Your task to perform on an android device: move a message to another label in the gmail app Image 0: 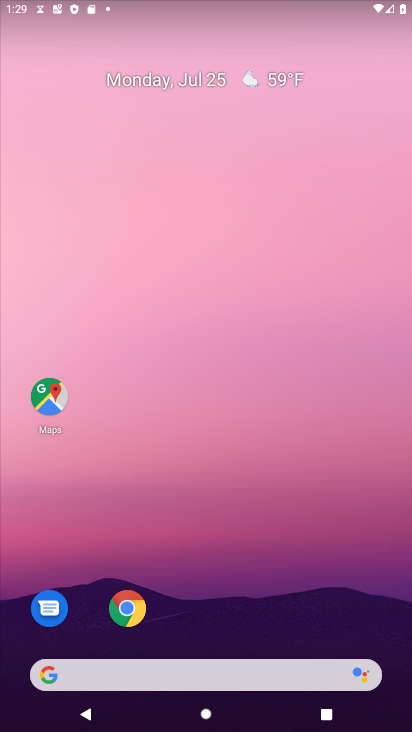
Step 0: click (248, 136)
Your task to perform on an android device: move a message to another label in the gmail app Image 1: 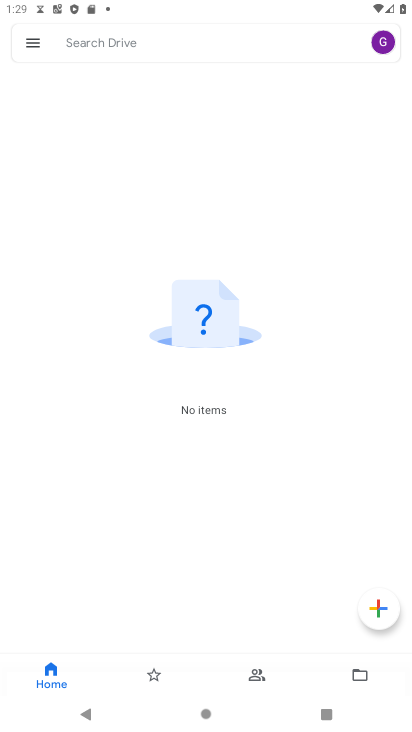
Step 1: press home button
Your task to perform on an android device: move a message to another label in the gmail app Image 2: 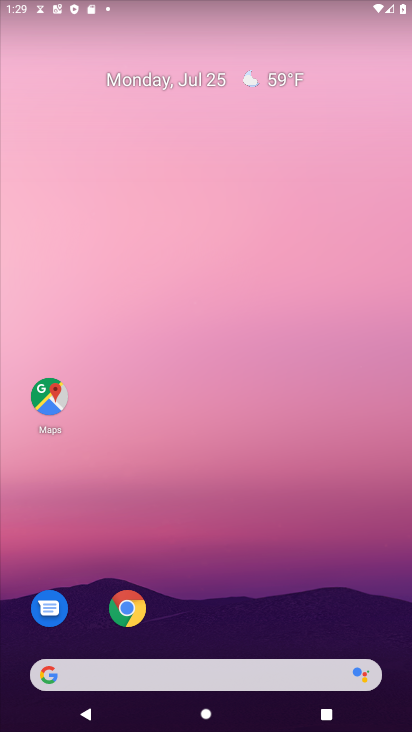
Step 2: drag from (219, 620) to (227, 181)
Your task to perform on an android device: move a message to another label in the gmail app Image 3: 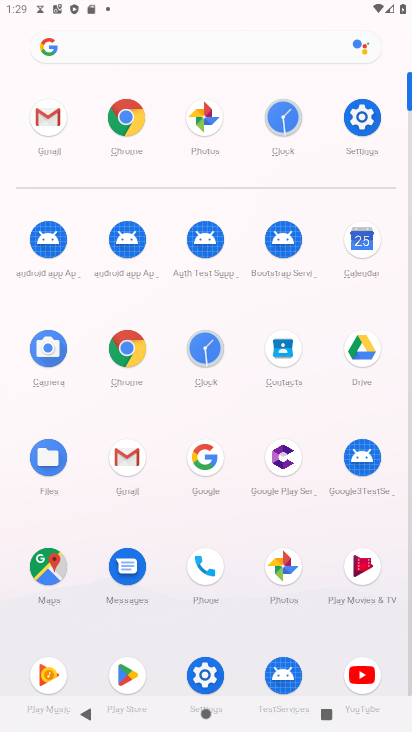
Step 3: click (127, 463)
Your task to perform on an android device: move a message to another label in the gmail app Image 4: 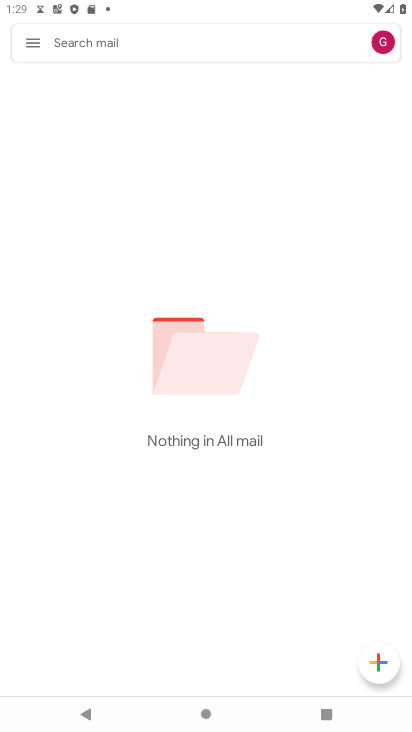
Step 4: click (33, 46)
Your task to perform on an android device: move a message to another label in the gmail app Image 5: 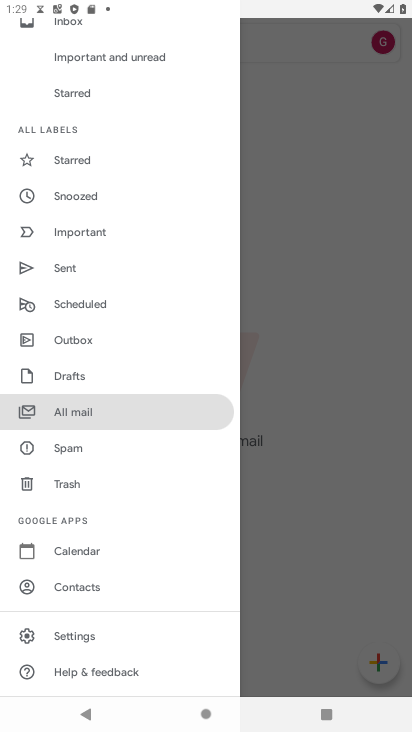
Step 5: click (126, 256)
Your task to perform on an android device: move a message to another label in the gmail app Image 6: 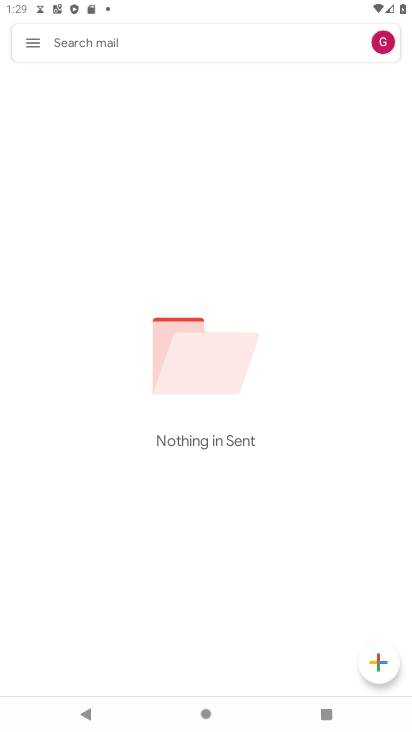
Step 6: click (26, 49)
Your task to perform on an android device: move a message to another label in the gmail app Image 7: 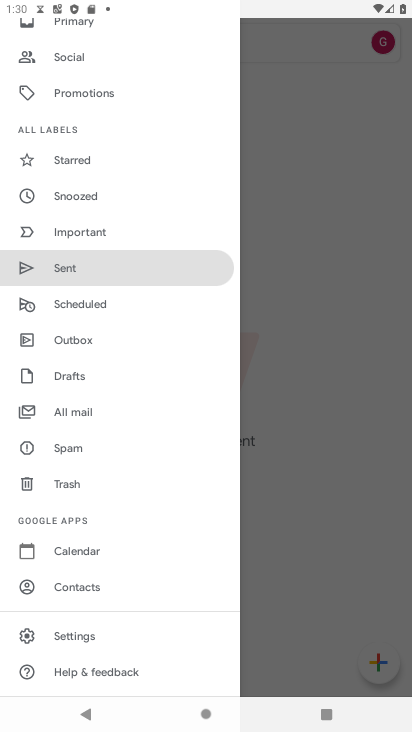
Step 7: click (118, 224)
Your task to perform on an android device: move a message to another label in the gmail app Image 8: 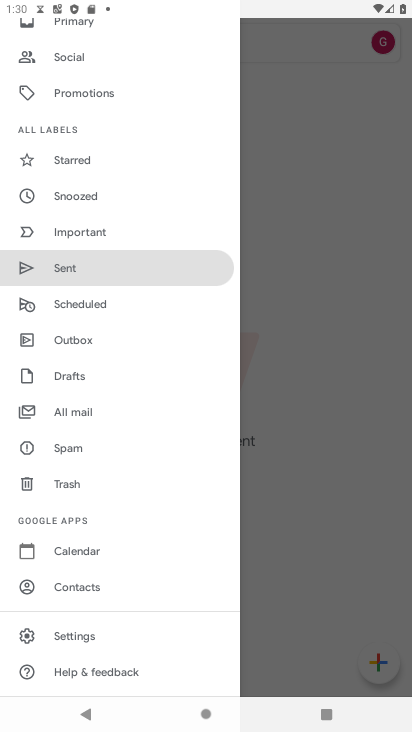
Step 8: click (87, 420)
Your task to perform on an android device: move a message to another label in the gmail app Image 9: 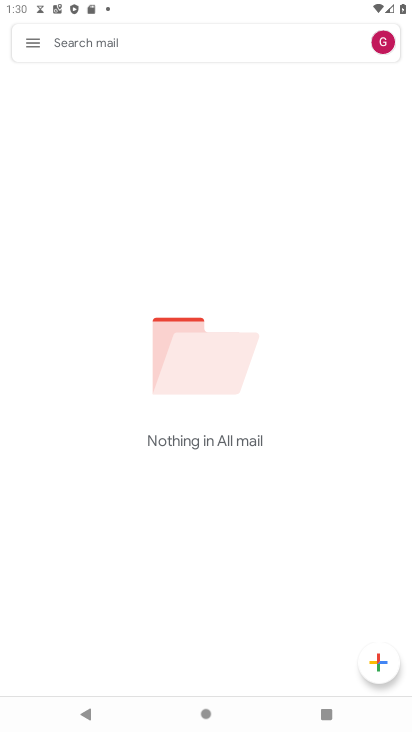
Step 9: task complete